Your task to perform on an android device: create a new album in the google photos Image 0: 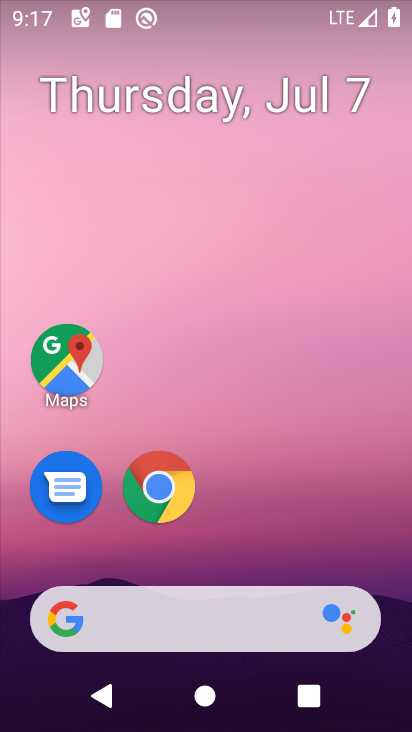
Step 0: drag from (351, 541) to (358, 120)
Your task to perform on an android device: create a new album in the google photos Image 1: 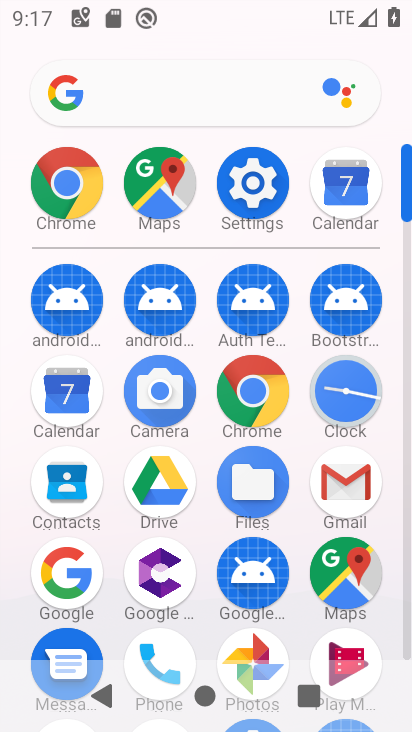
Step 1: click (245, 641)
Your task to perform on an android device: create a new album in the google photos Image 2: 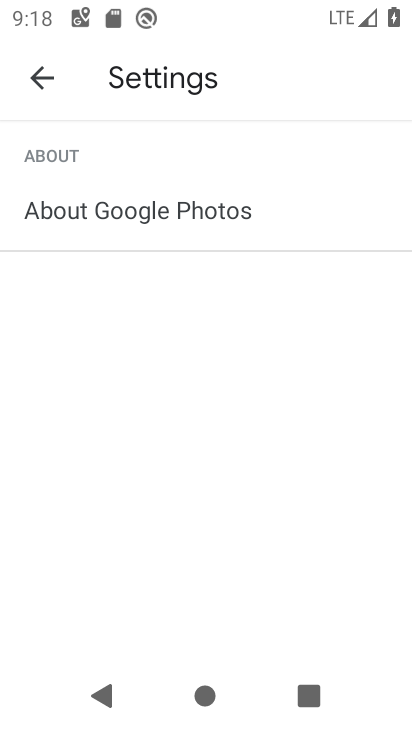
Step 2: press back button
Your task to perform on an android device: create a new album in the google photos Image 3: 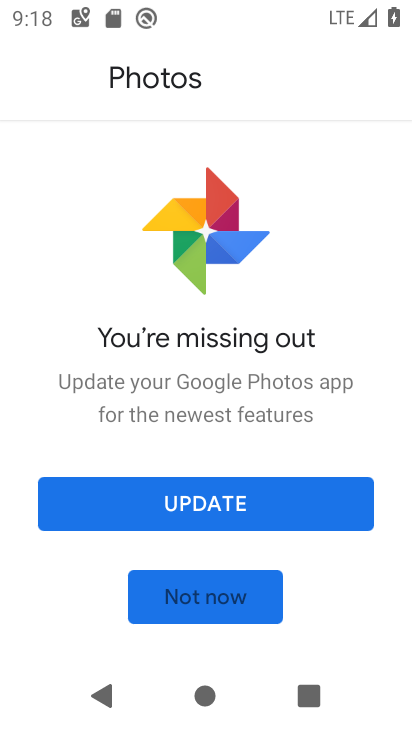
Step 3: click (330, 497)
Your task to perform on an android device: create a new album in the google photos Image 4: 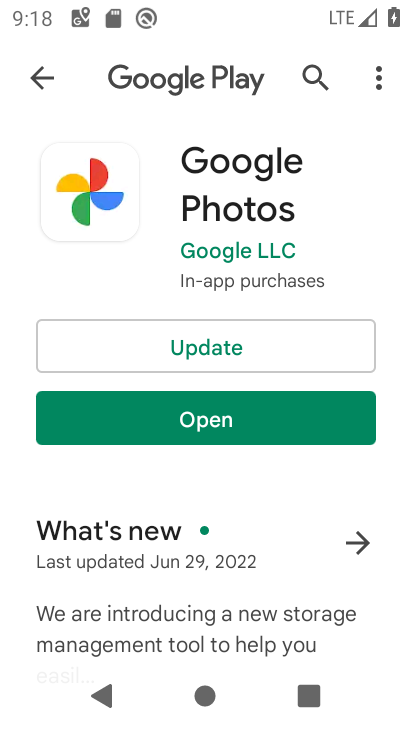
Step 4: click (260, 327)
Your task to perform on an android device: create a new album in the google photos Image 5: 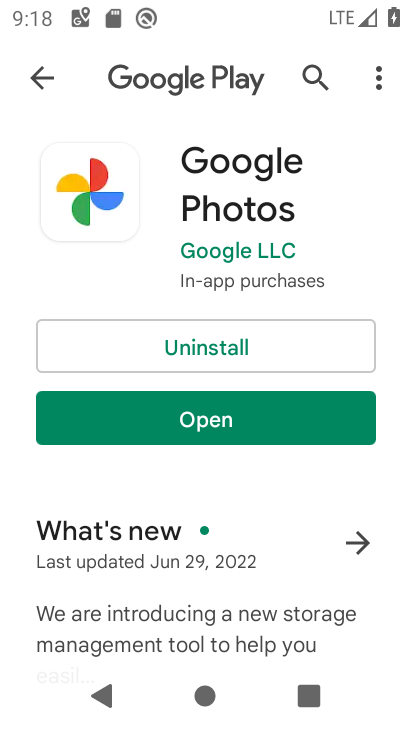
Step 5: click (257, 415)
Your task to perform on an android device: create a new album in the google photos Image 6: 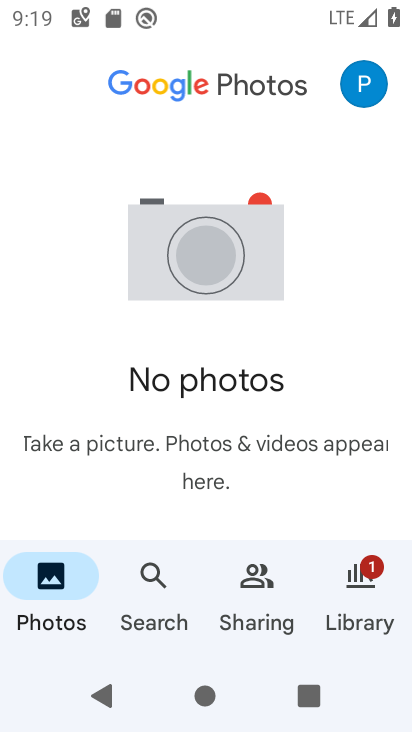
Step 6: click (351, 597)
Your task to perform on an android device: create a new album in the google photos Image 7: 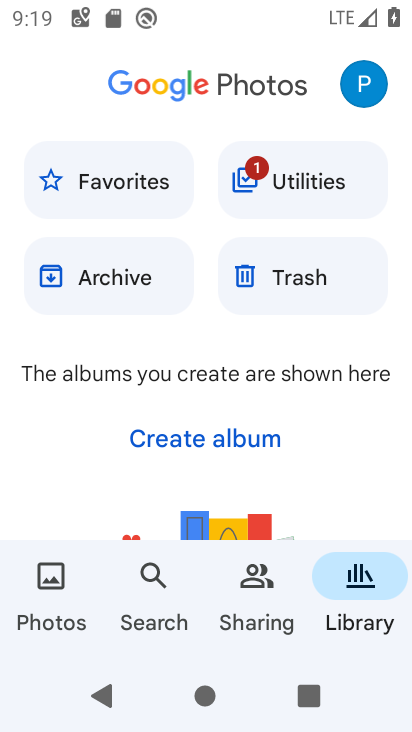
Step 7: drag from (177, 448) to (186, 297)
Your task to perform on an android device: create a new album in the google photos Image 8: 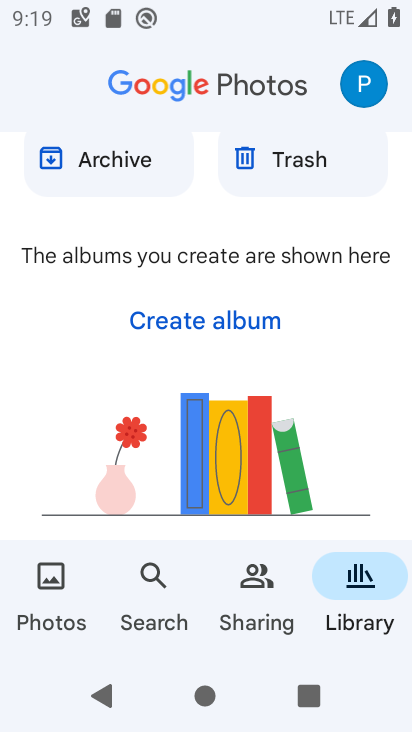
Step 8: click (220, 321)
Your task to perform on an android device: create a new album in the google photos Image 9: 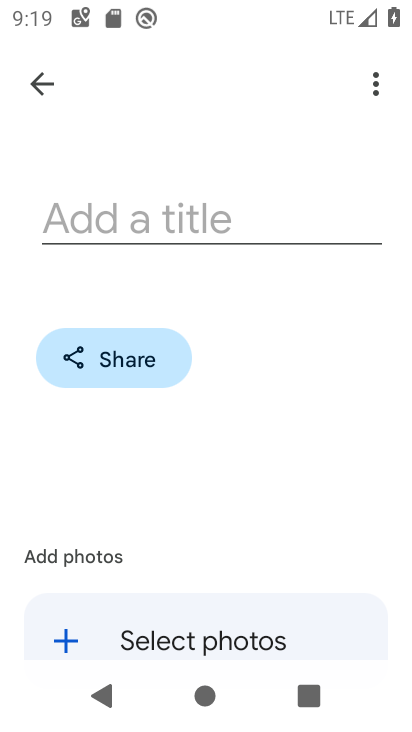
Step 9: click (222, 223)
Your task to perform on an android device: create a new album in the google photos Image 10: 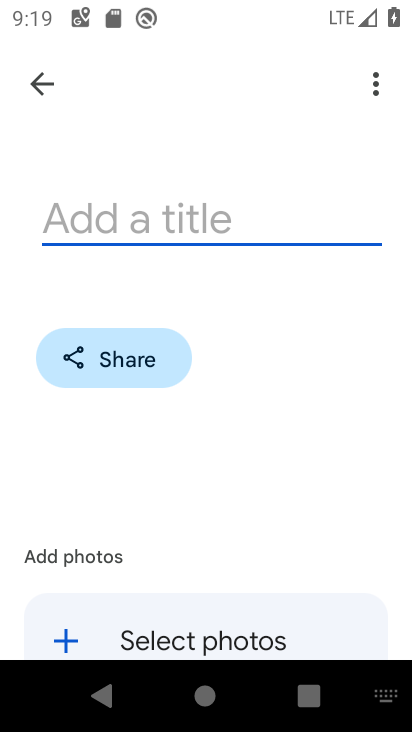
Step 10: type "fav"
Your task to perform on an android device: create a new album in the google photos Image 11: 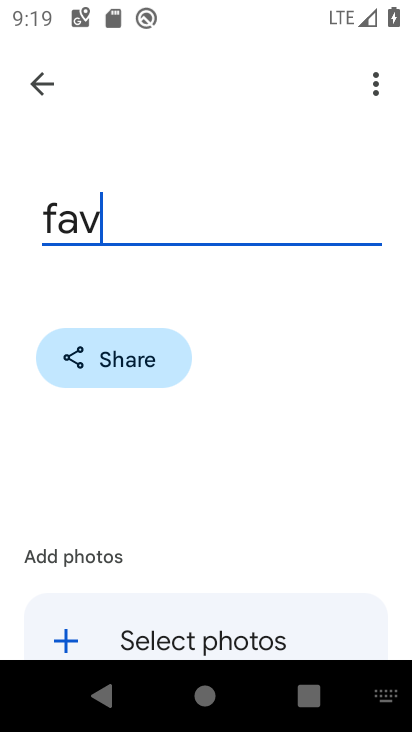
Step 11: drag from (258, 523) to (260, 298)
Your task to perform on an android device: create a new album in the google photos Image 12: 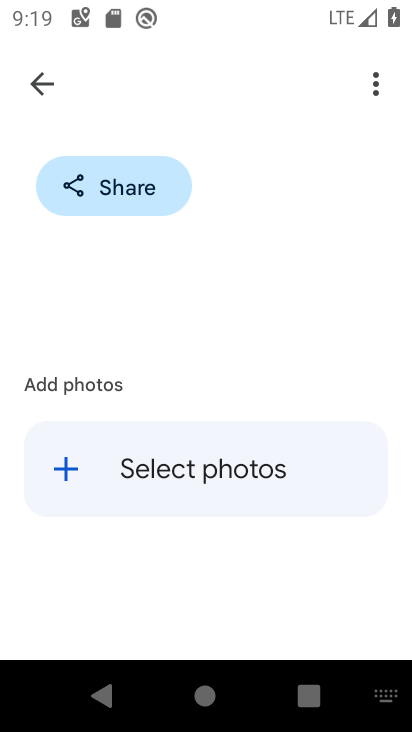
Step 12: click (147, 457)
Your task to perform on an android device: create a new album in the google photos Image 13: 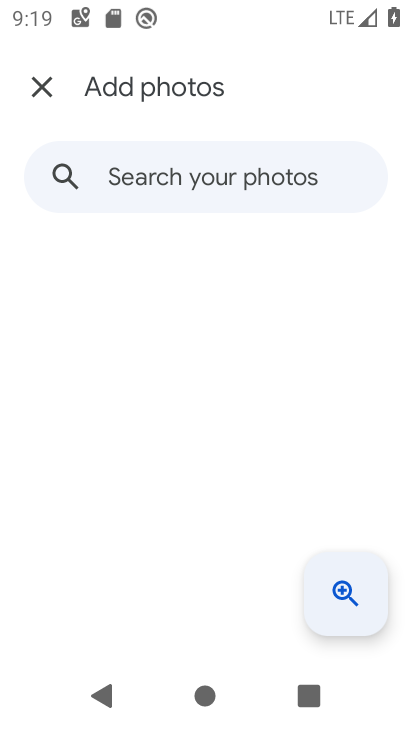
Step 13: click (238, 178)
Your task to perform on an android device: create a new album in the google photos Image 14: 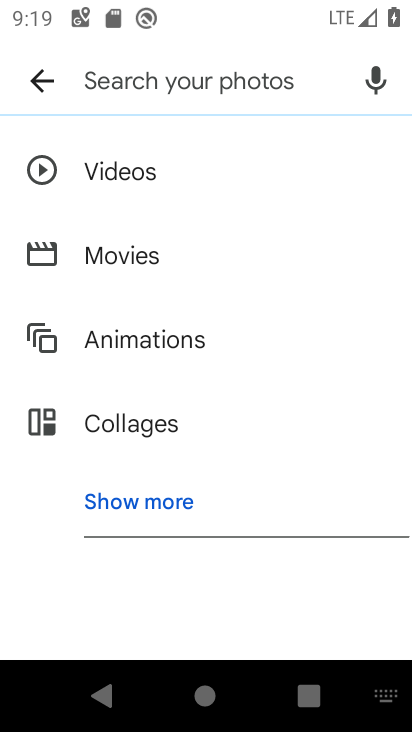
Step 14: click (43, 83)
Your task to perform on an android device: create a new album in the google photos Image 15: 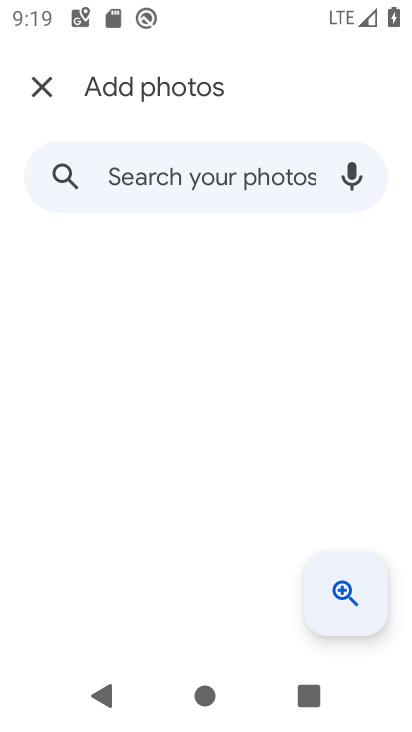
Step 15: task complete